Your task to perform on an android device: see tabs open on other devices in the chrome app Image 0: 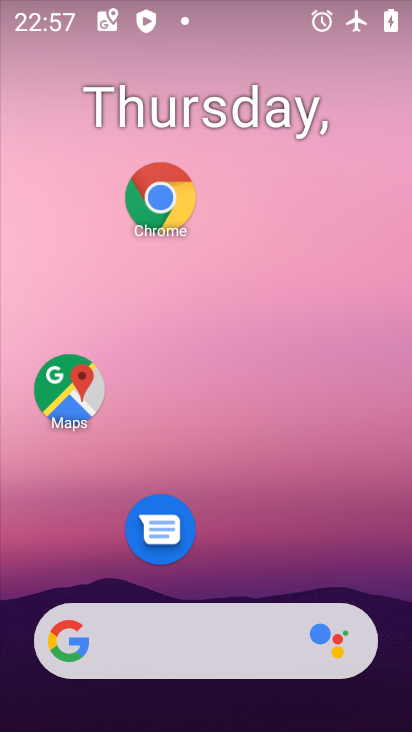
Step 0: click (154, 205)
Your task to perform on an android device: see tabs open on other devices in the chrome app Image 1: 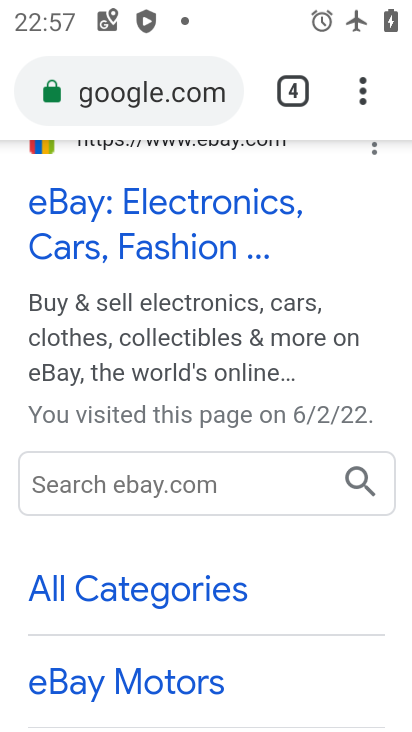
Step 1: click (367, 89)
Your task to perform on an android device: see tabs open on other devices in the chrome app Image 2: 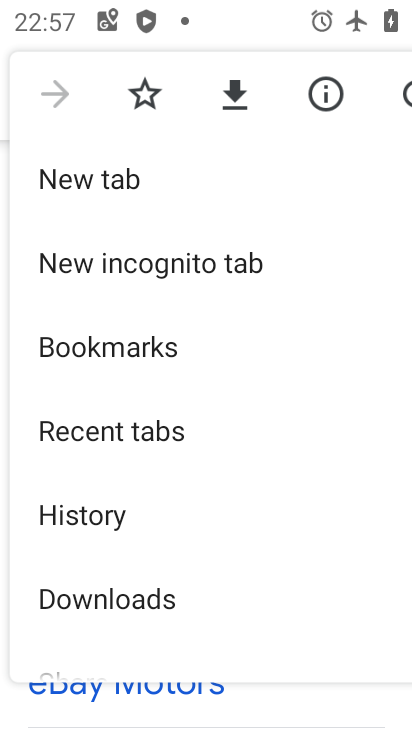
Step 2: click (81, 418)
Your task to perform on an android device: see tabs open on other devices in the chrome app Image 3: 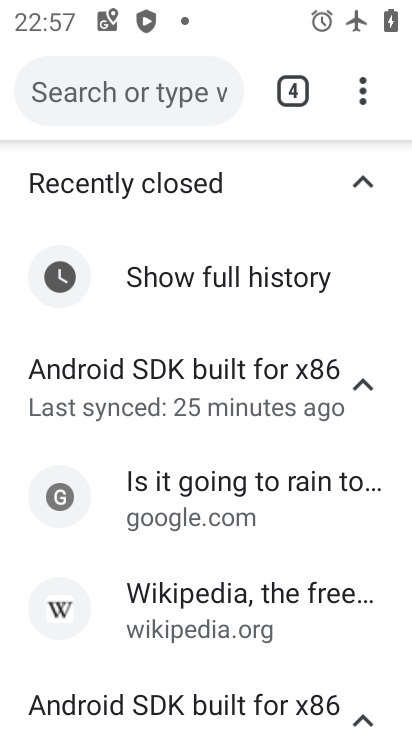
Step 3: task complete